Your task to perform on an android device: Is it going to rain this weekend? Image 0: 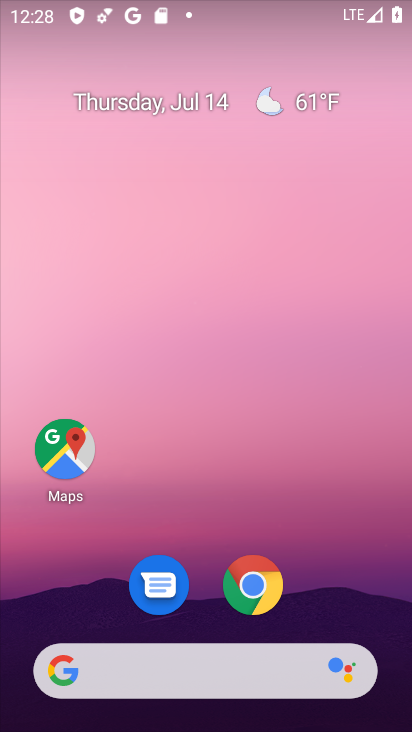
Step 0: drag from (334, 573) to (330, 518)
Your task to perform on an android device: Is it going to rain this weekend? Image 1: 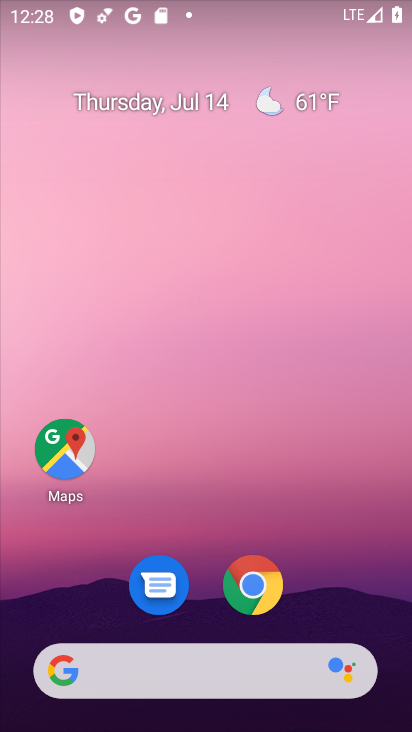
Step 1: click (209, 673)
Your task to perform on an android device: Is it going to rain this weekend? Image 2: 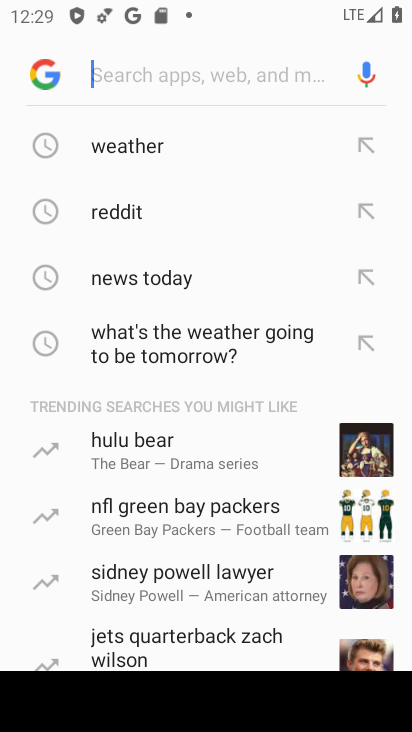
Step 2: click (121, 148)
Your task to perform on an android device: Is it going to rain this weekend? Image 3: 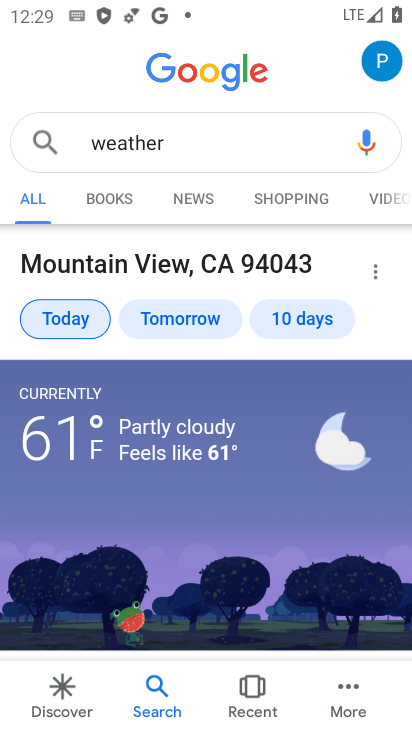
Step 3: click (88, 309)
Your task to perform on an android device: Is it going to rain this weekend? Image 4: 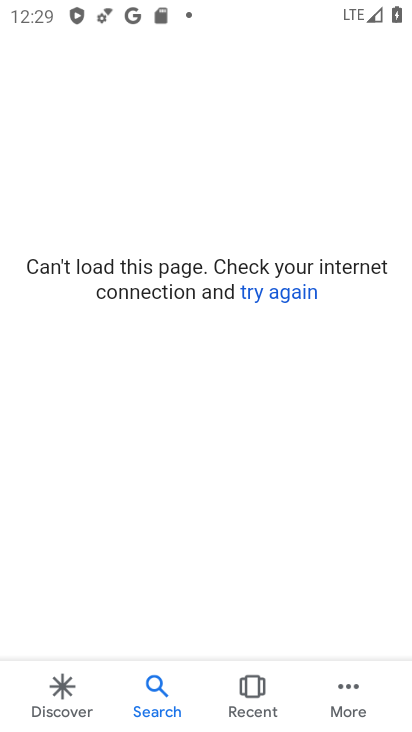
Step 4: click (292, 283)
Your task to perform on an android device: Is it going to rain this weekend? Image 5: 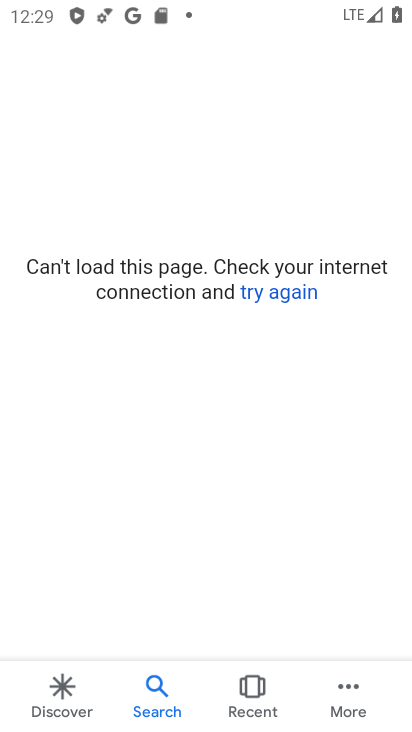
Step 5: click (296, 294)
Your task to perform on an android device: Is it going to rain this weekend? Image 6: 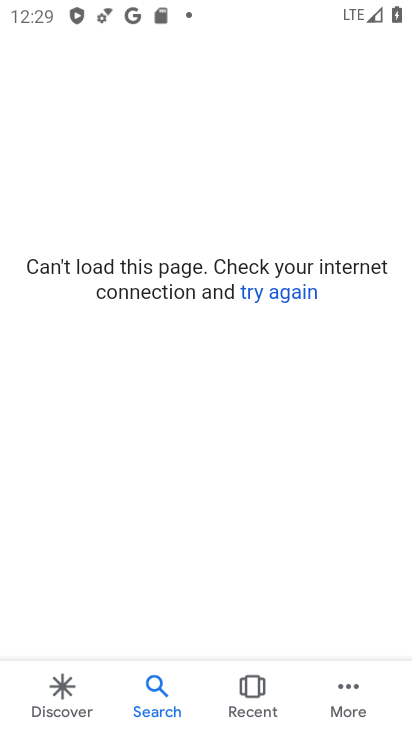
Step 6: click (296, 286)
Your task to perform on an android device: Is it going to rain this weekend? Image 7: 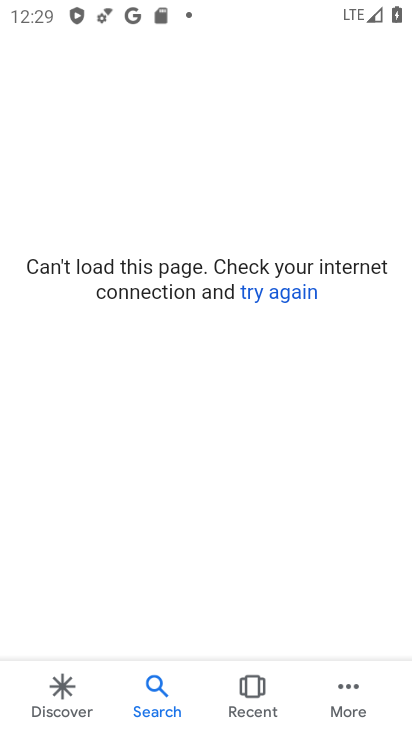
Step 7: click (296, 286)
Your task to perform on an android device: Is it going to rain this weekend? Image 8: 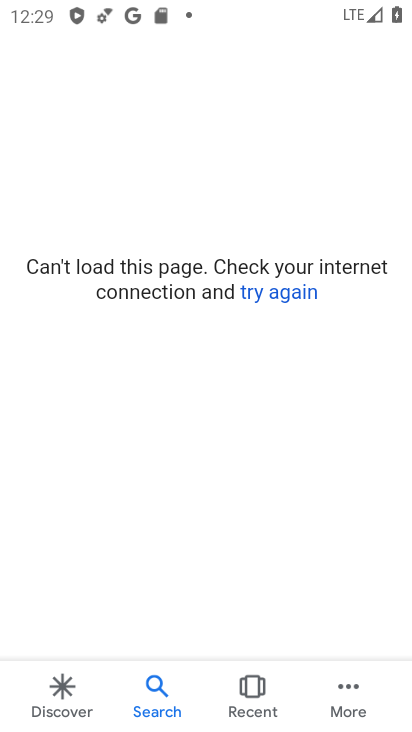
Step 8: task complete